Your task to perform on an android device: Open the Play Movies app and select the watchlist tab. Image 0: 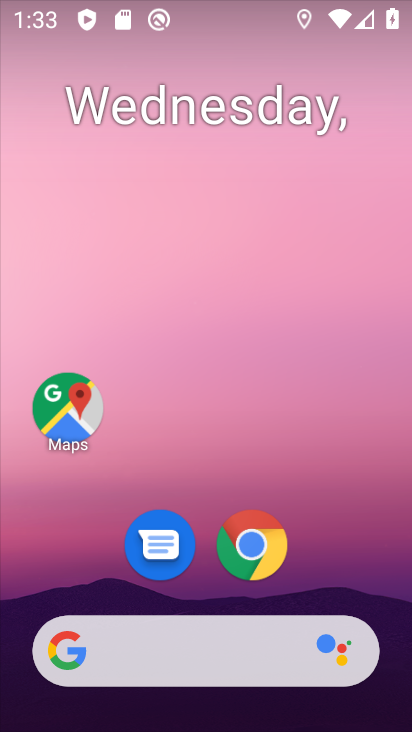
Step 0: drag from (323, 483) to (338, 126)
Your task to perform on an android device: Open the Play Movies app and select the watchlist tab. Image 1: 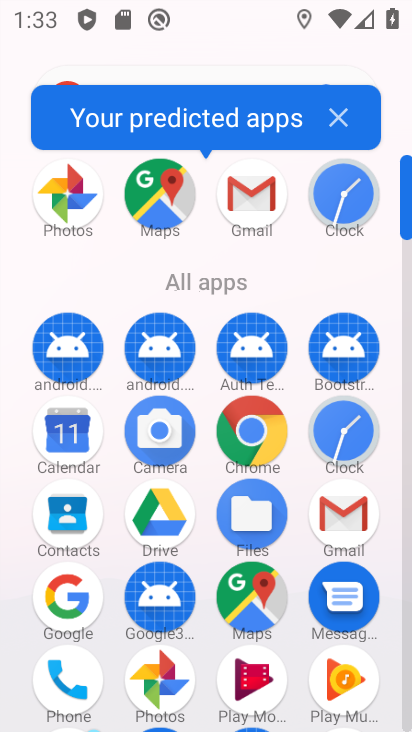
Step 1: drag from (291, 636) to (294, 245)
Your task to perform on an android device: Open the Play Movies app and select the watchlist tab. Image 2: 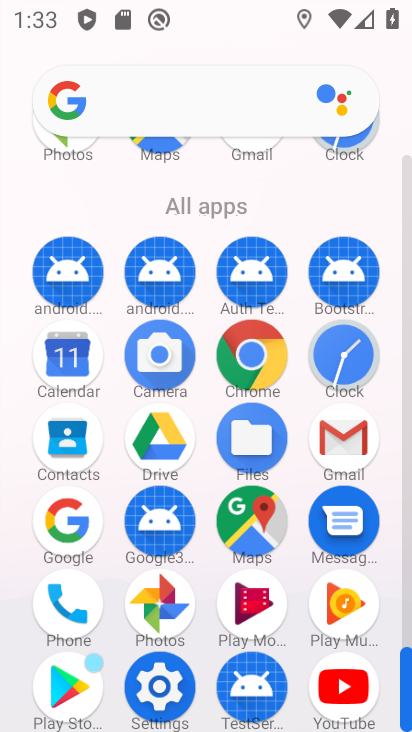
Step 2: click (252, 598)
Your task to perform on an android device: Open the Play Movies app and select the watchlist tab. Image 3: 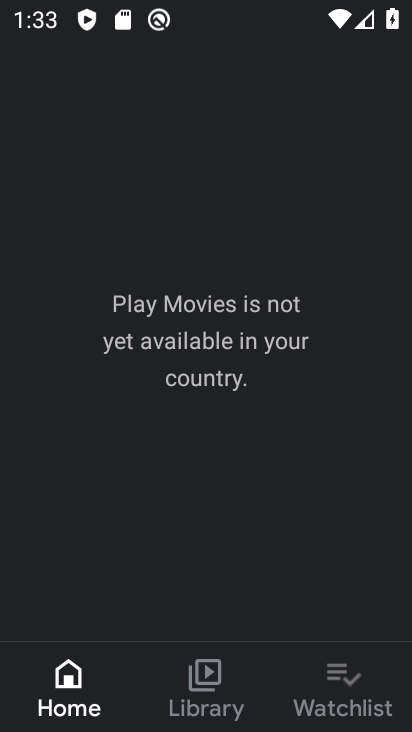
Step 3: click (317, 680)
Your task to perform on an android device: Open the Play Movies app and select the watchlist tab. Image 4: 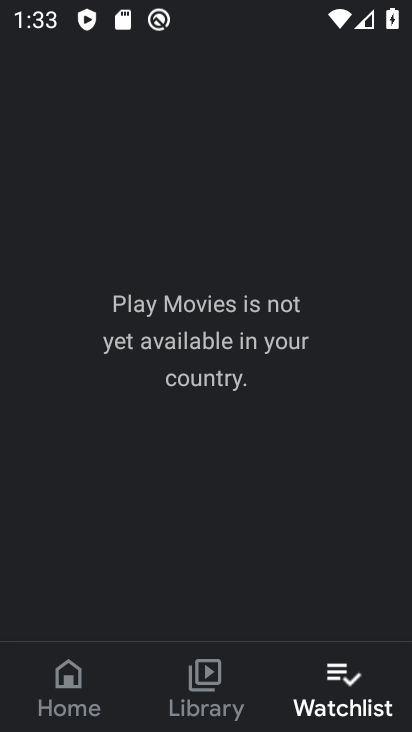
Step 4: task complete